Your task to perform on an android device: clear all cookies in the chrome app Image 0: 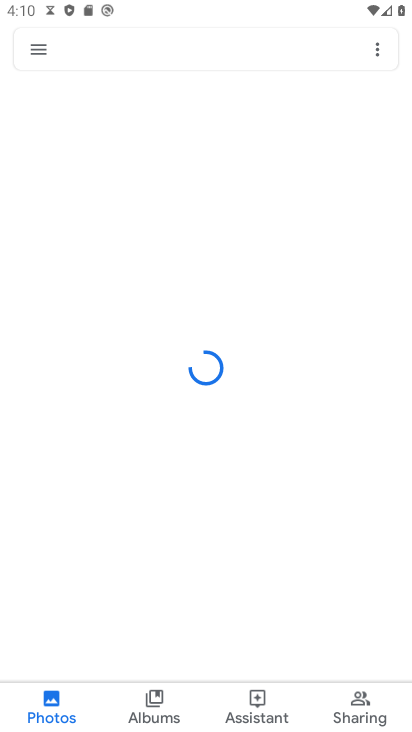
Step 0: press home button
Your task to perform on an android device: clear all cookies in the chrome app Image 1: 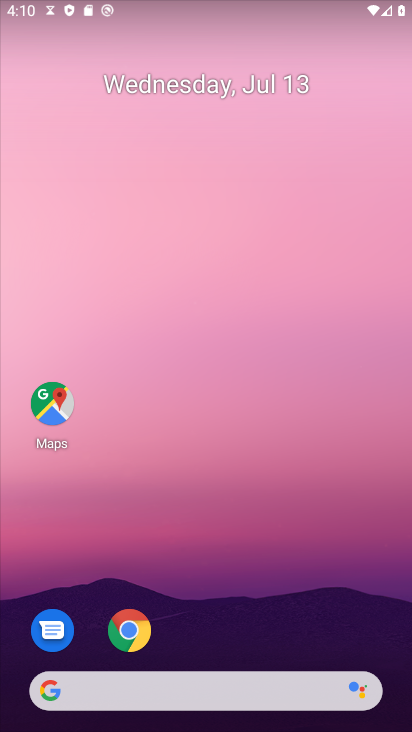
Step 1: drag from (237, 639) to (336, 72)
Your task to perform on an android device: clear all cookies in the chrome app Image 2: 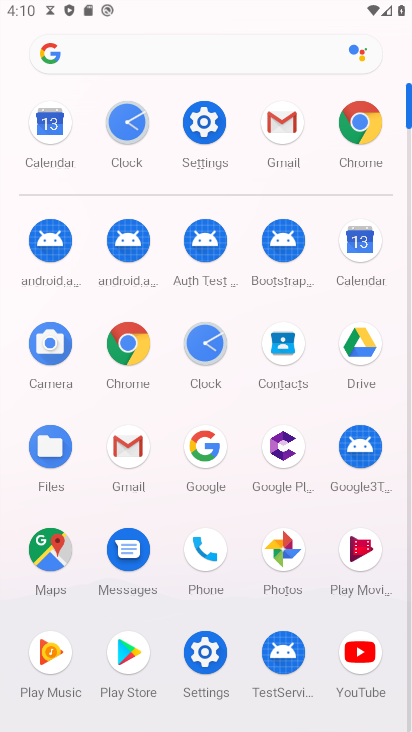
Step 2: click (359, 131)
Your task to perform on an android device: clear all cookies in the chrome app Image 3: 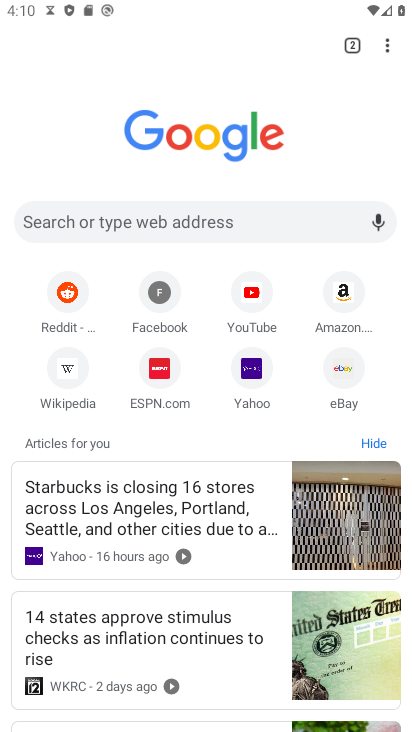
Step 3: drag from (395, 41) to (240, 435)
Your task to perform on an android device: clear all cookies in the chrome app Image 4: 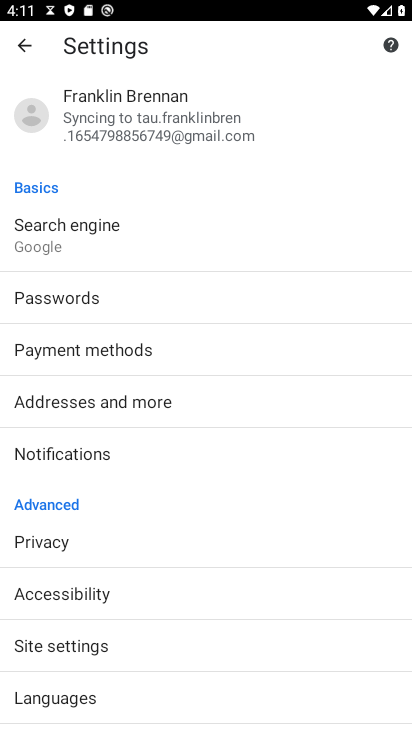
Step 4: click (39, 539)
Your task to perform on an android device: clear all cookies in the chrome app Image 5: 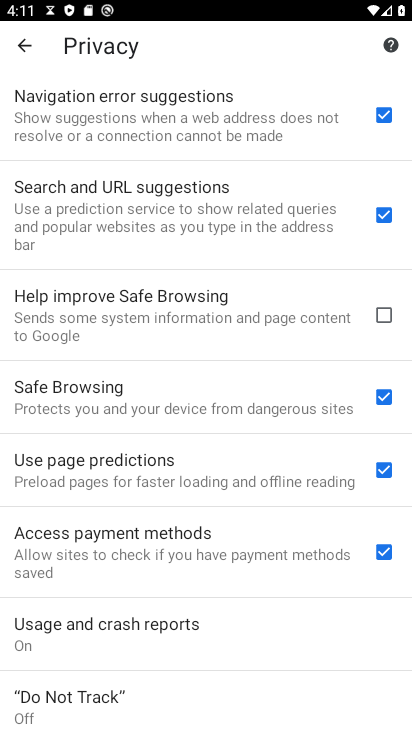
Step 5: drag from (209, 687) to (326, 268)
Your task to perform on an android device: clear all cookies in the chrome app Image 6: 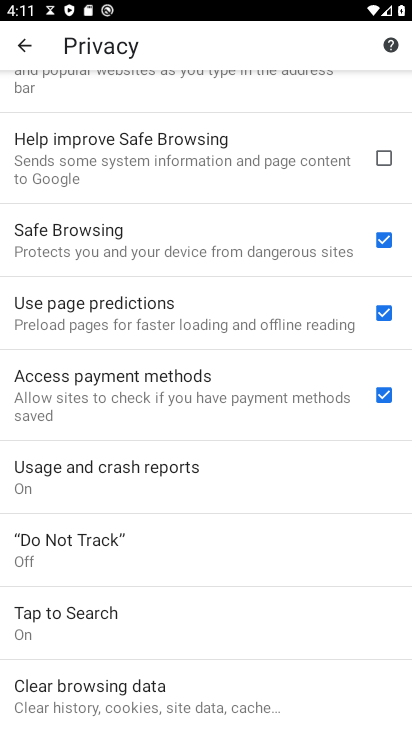
Step 6: click (60, 695)
Your task to perform on an android device: clear all cookies in the chrome app Image 7: 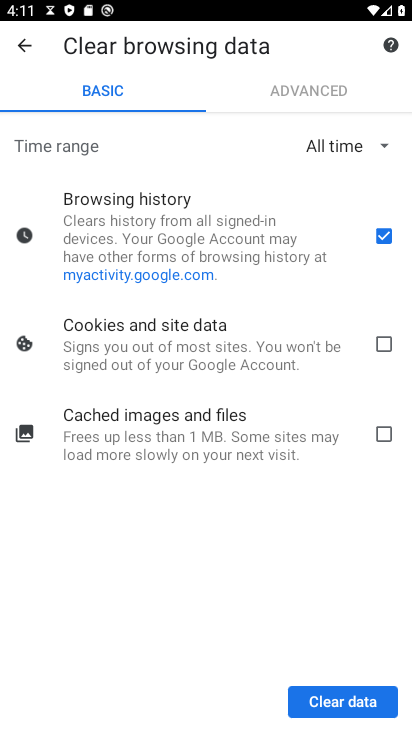
Step 7: click (396, 238)
Your task to perform on an android device: clear all cookies in the chrome app Image 8: 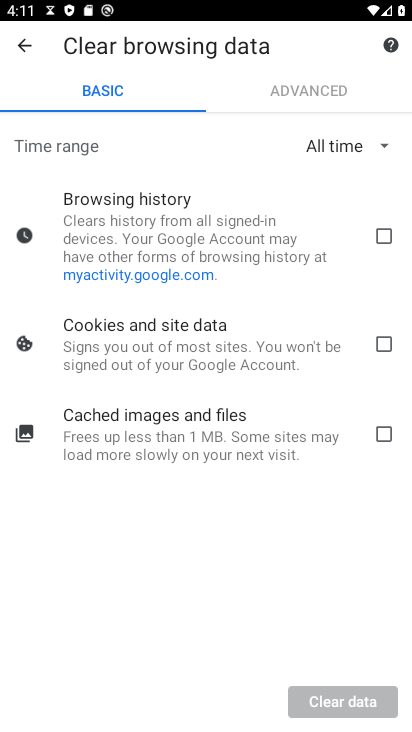
Step 8: click (373, 344)
Your task to perform on an android device: clear all cookies in the chrome app Image 9: 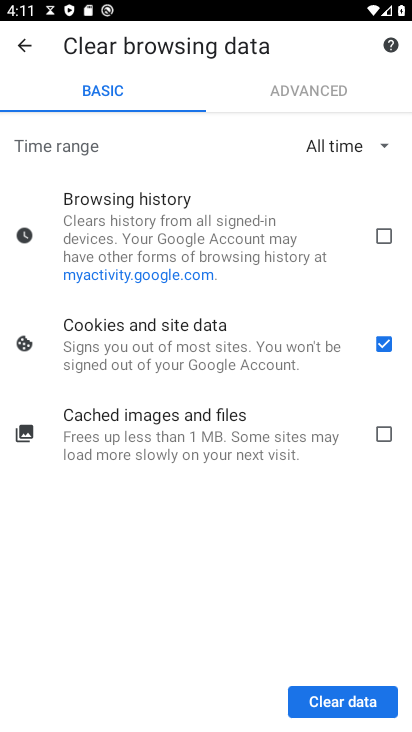
Step 9: click (340, 705)
Your task to perform on an android device: clear all cookies in the chrome app Image 10: 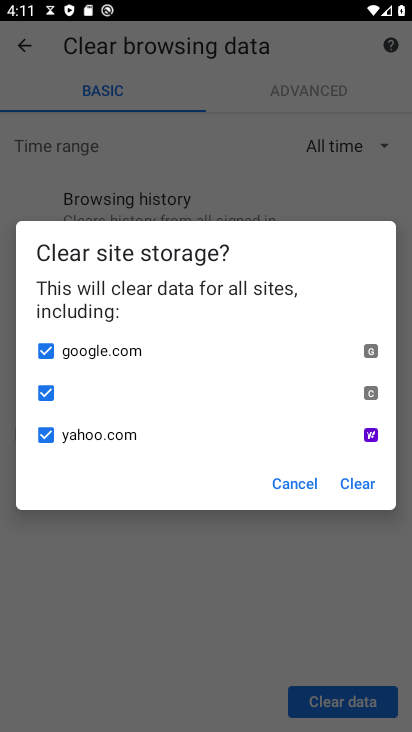
Step 10: click (358, 480)
Your task to perform on an android device: clear all cookies in the chrome app Image 11: 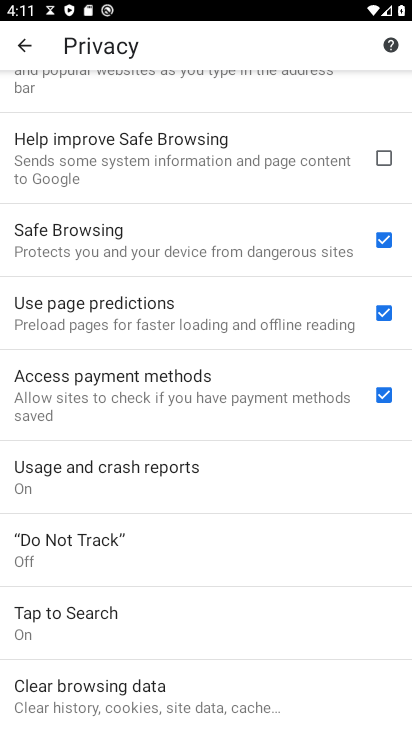
Step 11: task complete